Your task to perform on an android device: Go to network settings Image 0: 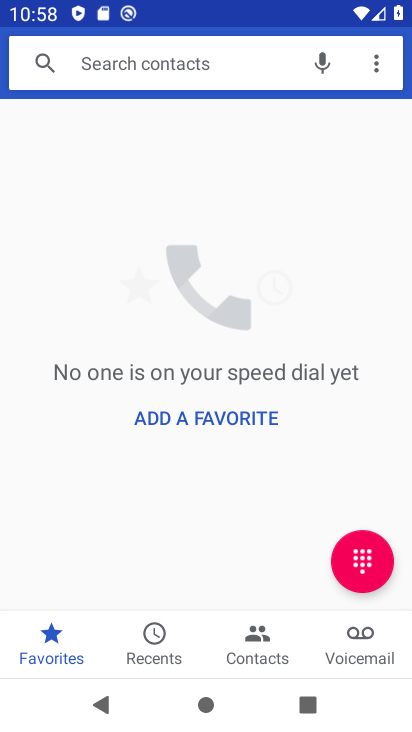
Step 0: drag from (265, 9) to (289, 631)
Your task to perform on an android device: Go to network settings Image 1: 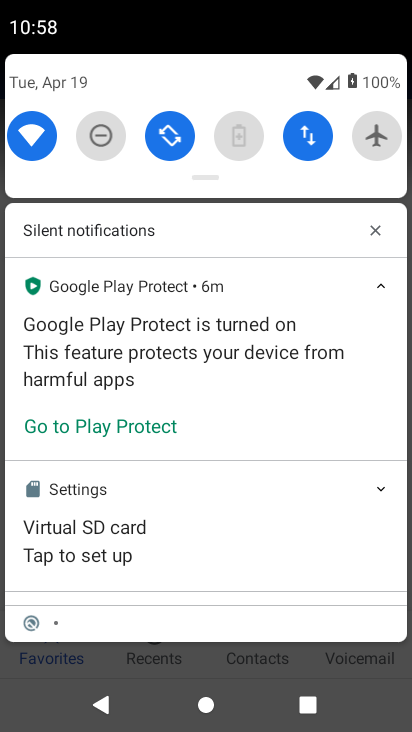
Step 1: drag from (185, 84) to (183, 725)
Your task to perform on an android device: Go to network settings Image 2: 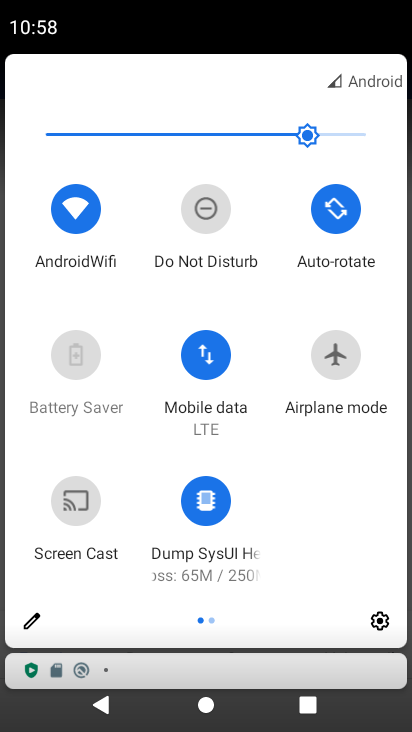
Step 2: click (377, 629)
Your task to perform on an android device: Go to network settings Image 3: 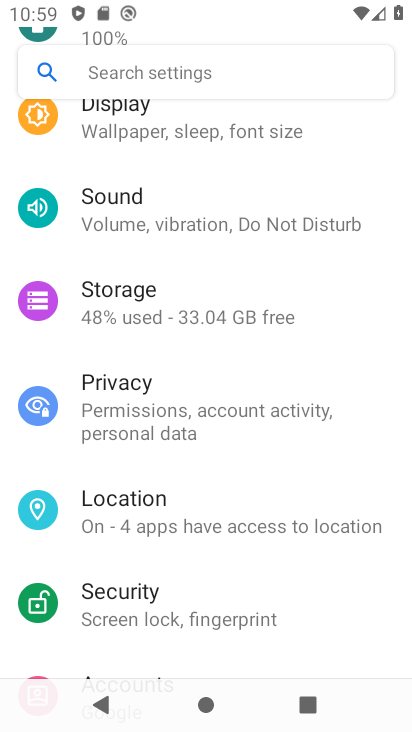
Step 3: drag from (183, 182) to (195, 696)
Your task to perform on an android device: Go to network settings Image 4: 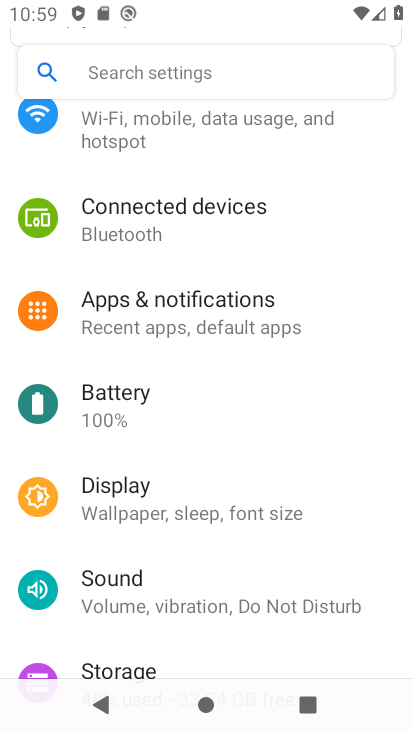
Step 4: drag from (202, 198) to (138, 674)
Your task to perform on an android device: Go to network settings Image 5: 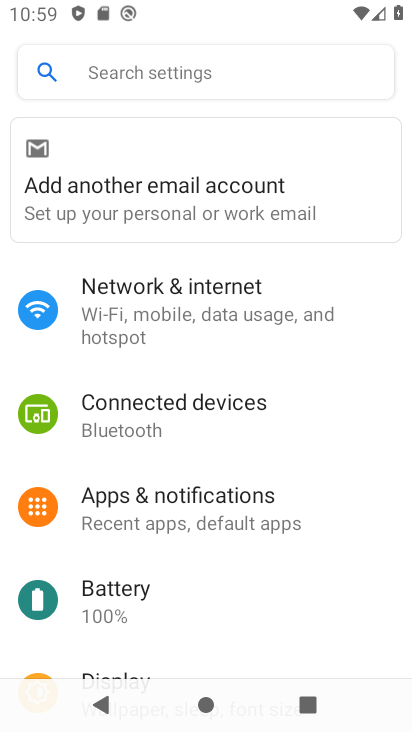
Step 5: click (143, 301)
Your task to perform on an android device: Go to network settings Image 6: 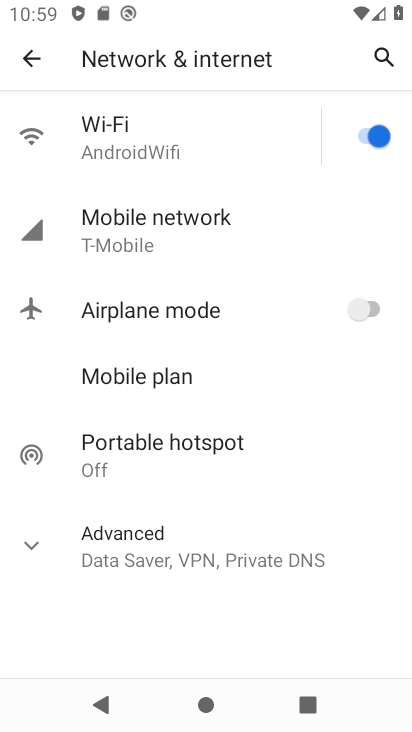
Step 6: click (200, 227)
Your task to perform on an android device: Go to network settings Image 7: 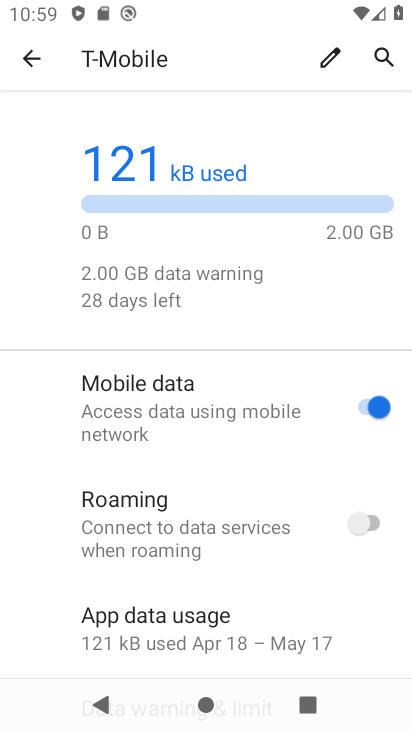
Step 7: task complete